Your task to perform on an android device: turn off notifications settings in the gmail app Image 0: 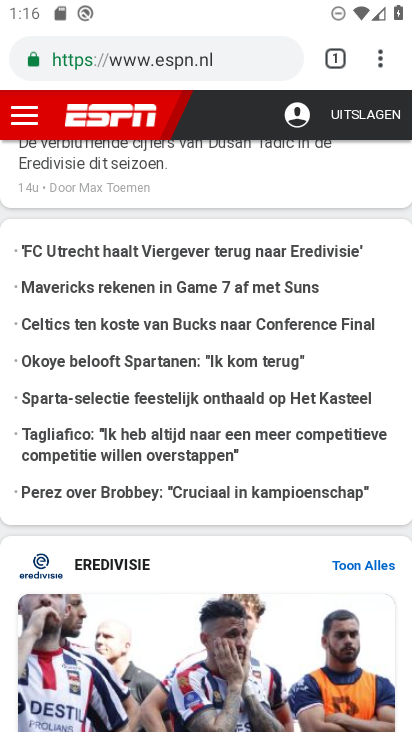
Step 0: press home button
Your task to perform on an android device: turn off notifications settings in the gmail app Image 1: 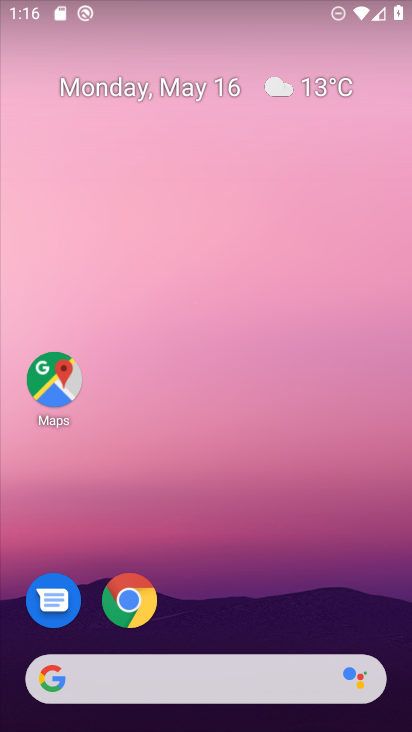
Step 1: drag from (234, 634) to (263, 147)
Your task to perform on an android device: turn off notifications settings in the gmail app Image 2: 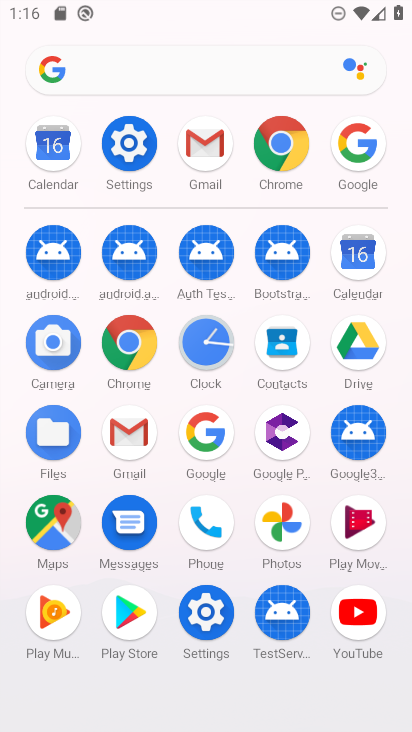
Step 2: click (202, 132)
Your task to perform on an android device: turn off notifications settings in the gmail app Image 3: 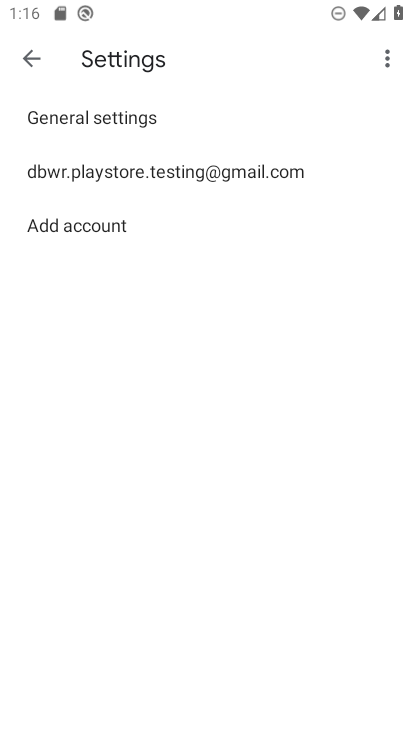
Step 3: click (170, 113)
Your task to perform on an android device: turn off notifications settings in the gmail app Image 4: 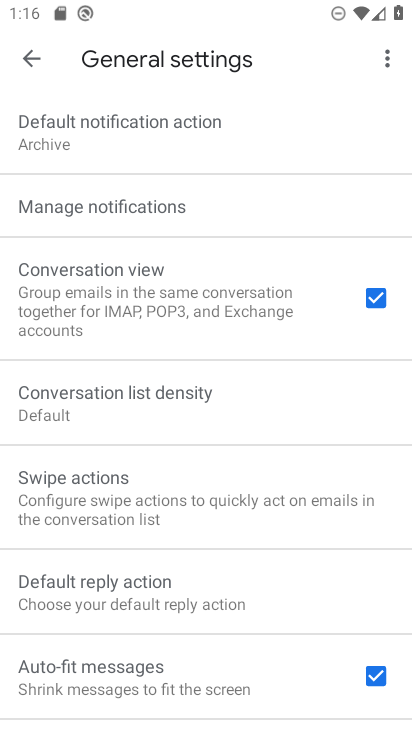
Step 4: click (192, 199)
Your task to perform on an android device: turn off notifications settings in the gmail app Image 5: 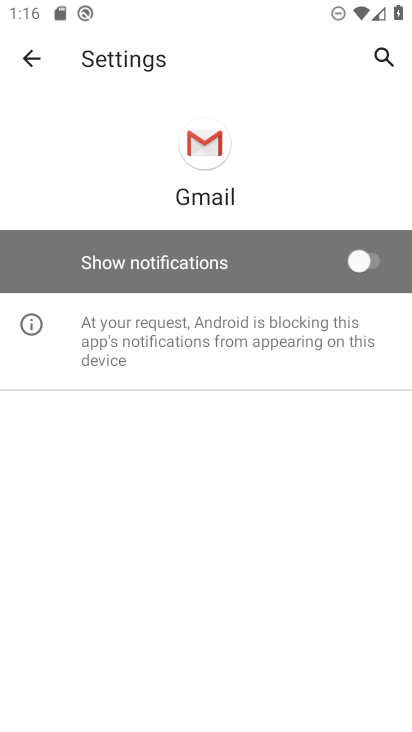
Step 5: task complete